Your task to perform on an android device: Go to Maps Image 0: 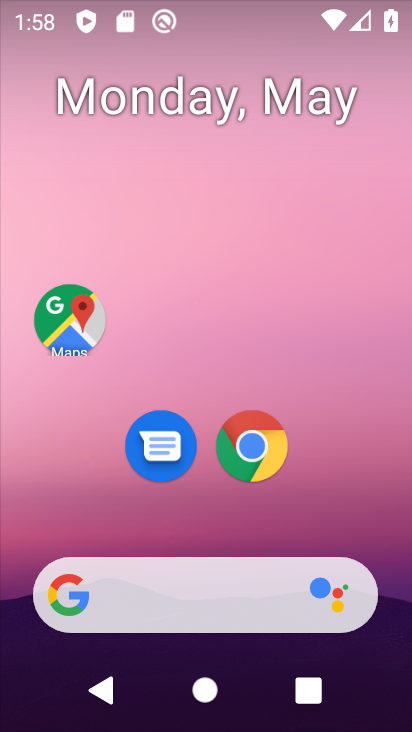
Step 0: press home button
Your task to perform on an android device: Go to Maps Image 1: 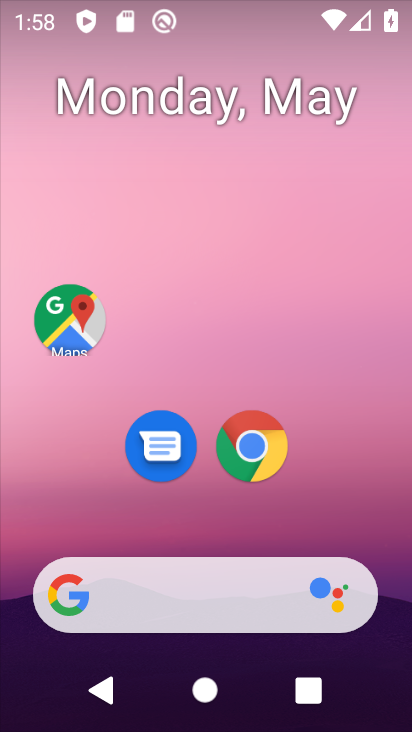
Step 1: drag from (374, 522) to (362, 156)
Your task to perform on an android device: Go to Maps Image 2: 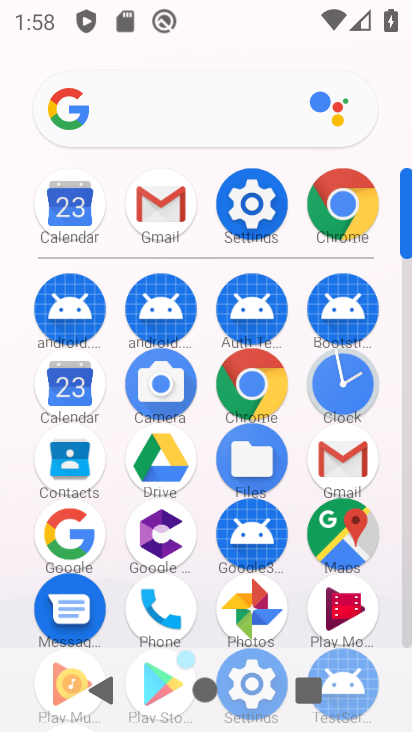
Step 2: click (334, 533)
Your task to perform on an android device: Go to Maps Image 3: 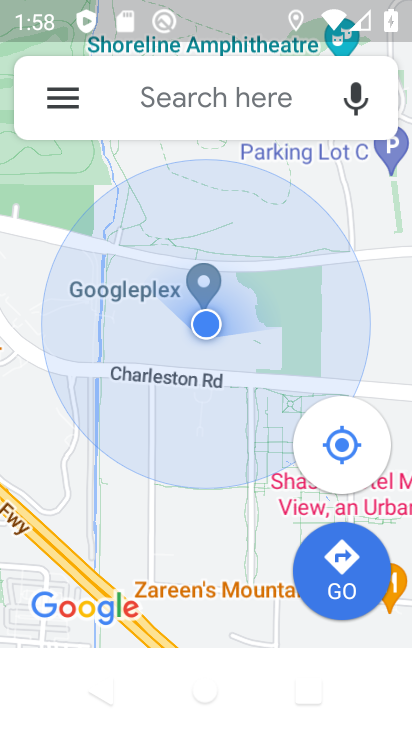
Step 3: task complete